Your task to perform on an android device: Turn off the flashlight Image 0: 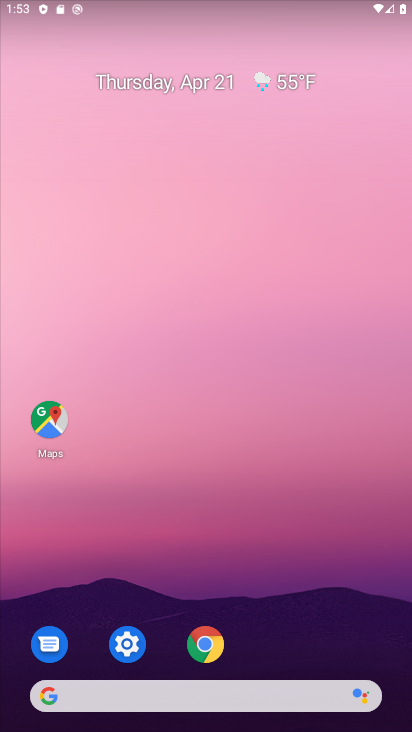
Step 0: drag from (332, 694) to (241, 341)
Your task to perform on an android device: Turn off the flashlight Image 1: 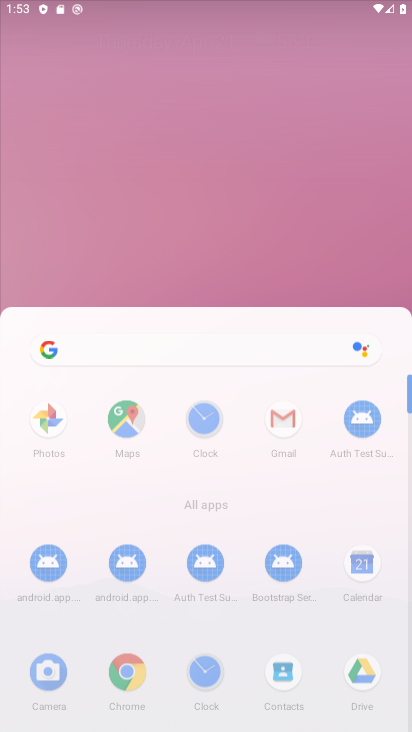
Step 1: task complete